Your task to perform on an android device: Do I have any events this weekend? Image 0: 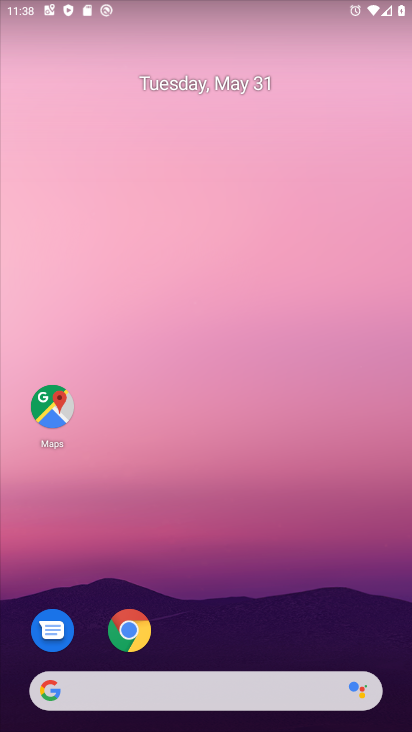
Step 0: drag from (83, 706) to (81, 3)
Your task to perform on an android device: Do I have any events this weekend? Image 1: 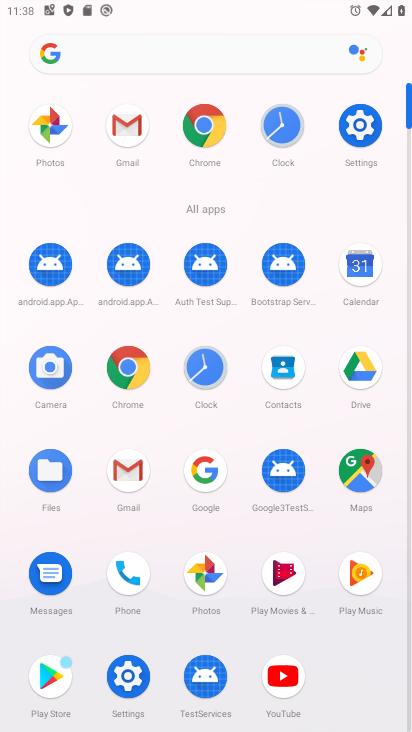
Step 1: click (359, 277)
Your task to perform on an android device: Do I have any events this weekend? Image 2: 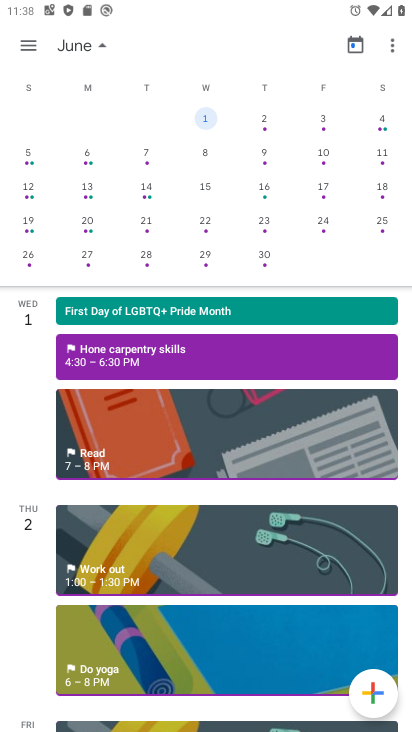
Step 2: click (25, 48)
Your task to perform on an android device: Do I have any events this weekend? Image 3: 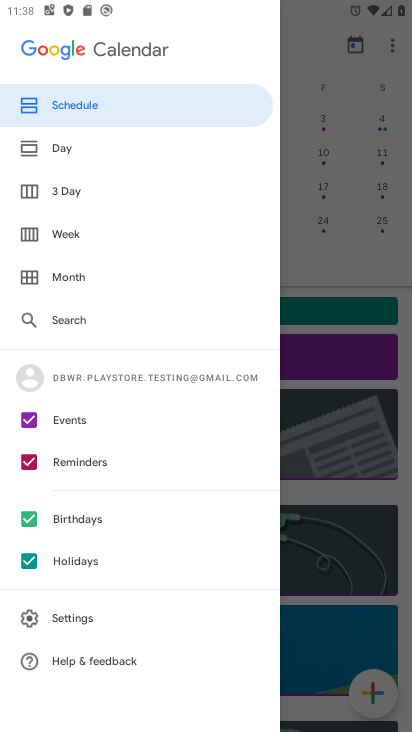
Step 3: click (26, 470)
Your task to perform on an android device: Do I have any events this weekend? Image 4: 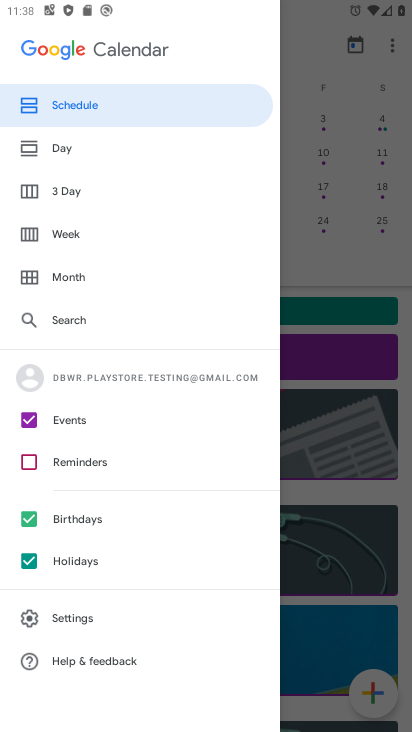
Step 4: click (32, 524)
Your task to perform on an android device: Do I have any events this weekend? Image 5: 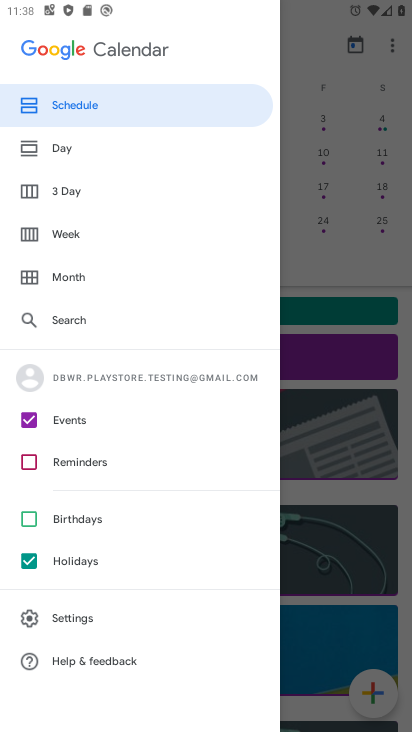
Step 5: click (25, 564)
Your task to perform on an android device: Do I have any events this weekend? Image 6: 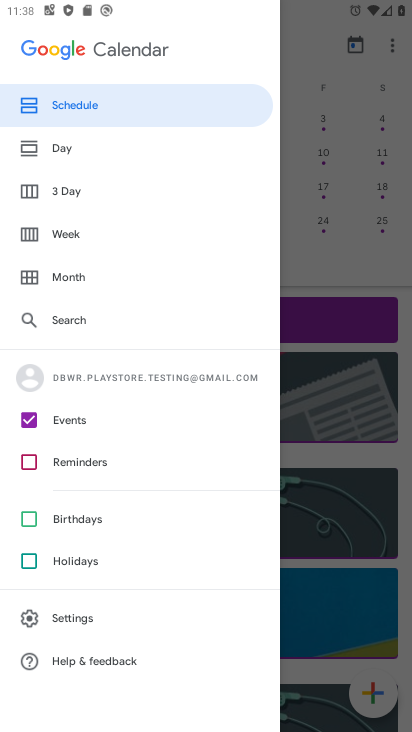
Step 6: click (65, 206)
Your task to perform on an android device: Do I have any events this weekend? Image 7: 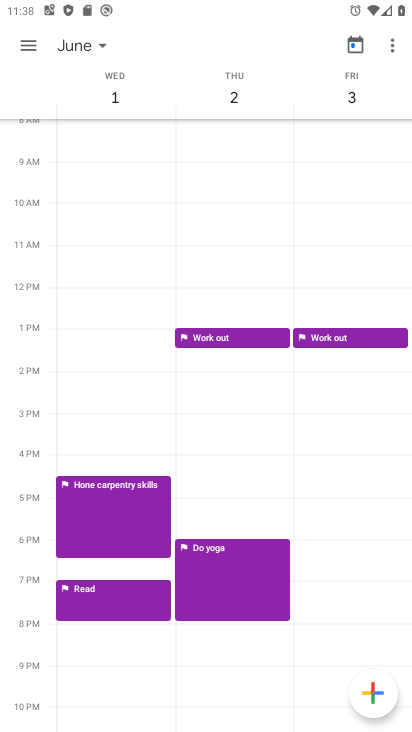
Step 7: task complete